Your task to perform on an android device: Go to network settings Image 0: 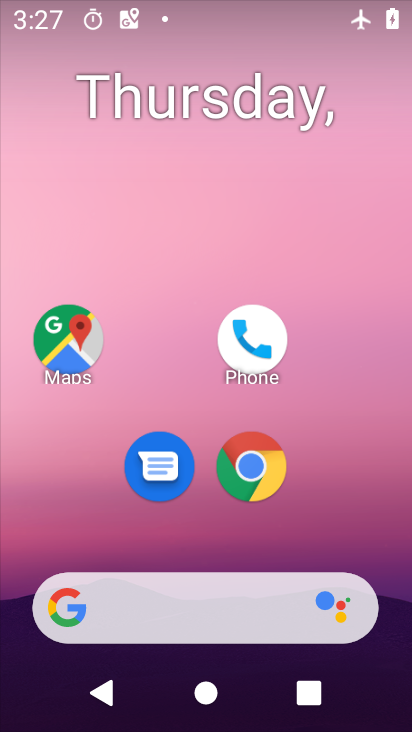
Step 0: drag from (207, 549) to (207, 97)
Your task to perform on an android device: Go to network settings Image 1: 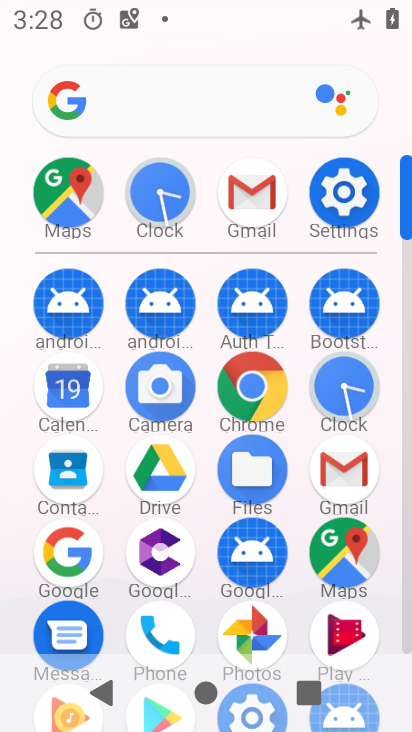
Step 1: click (338, 210)
Your task to perform on an android device: Go to network settings Image 2: 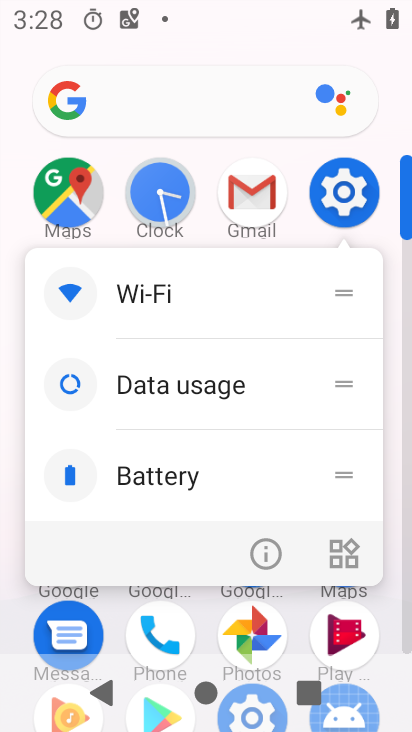
Step 2: click (257, 552)
Your task to perform on an android device: Go to network settings Image 3: 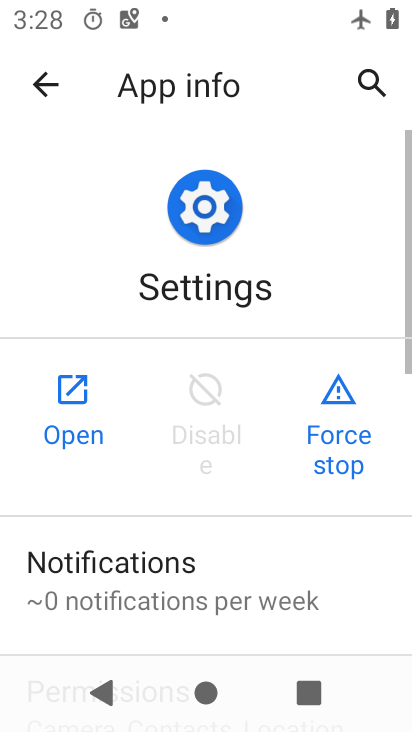
Step 3: click (67, 409)
Your task to perform on an android device: Go to network settings Image 4: 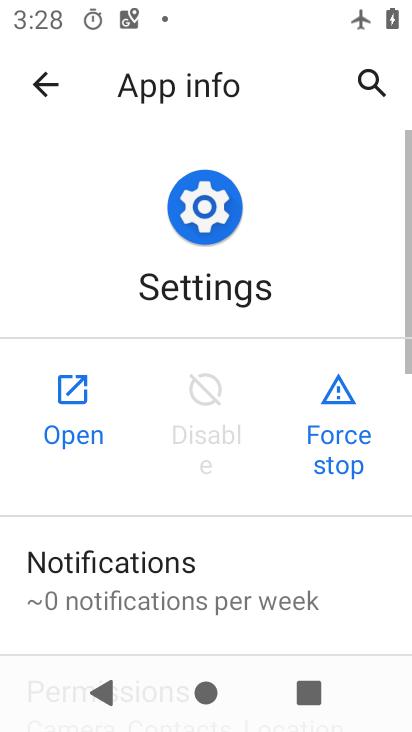
Step 4: click (66, 410)
Your task to perform on an android device: Go to network settings Image 5: 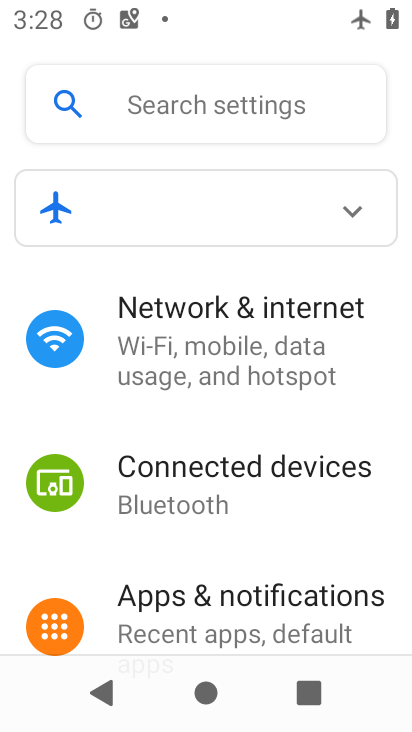
Step 5: drag from (238, 542) to (234, 186)
Your task to perform on an android device: Go to network settings Image 6: 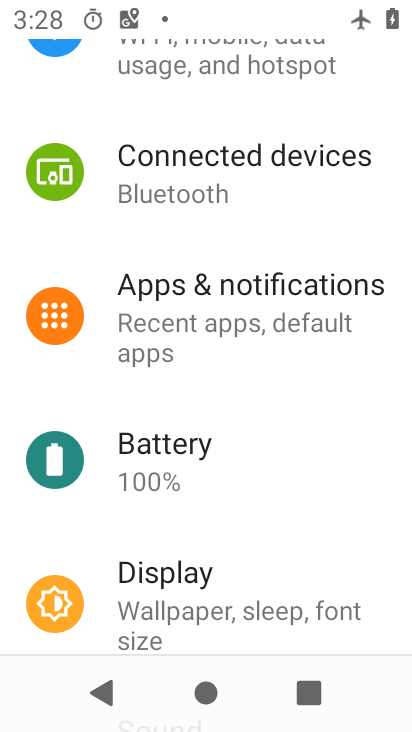
Step 6: click (213, 66)
Your task to perform on an android device: Go to network settings Image 7: 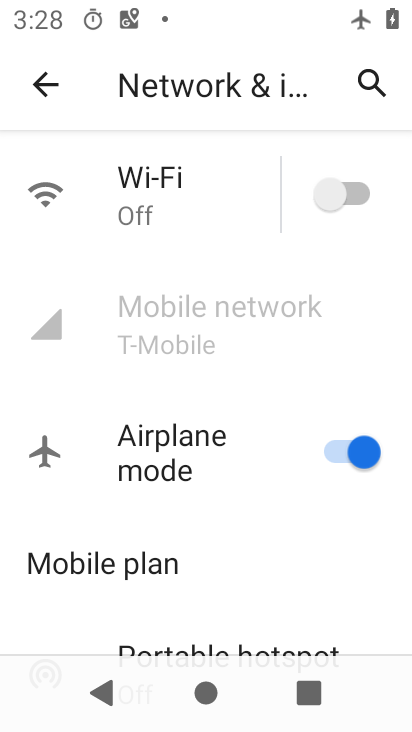
Step 7: task complete